Your task to perform on an android device: When is my next appointment? Image 0: 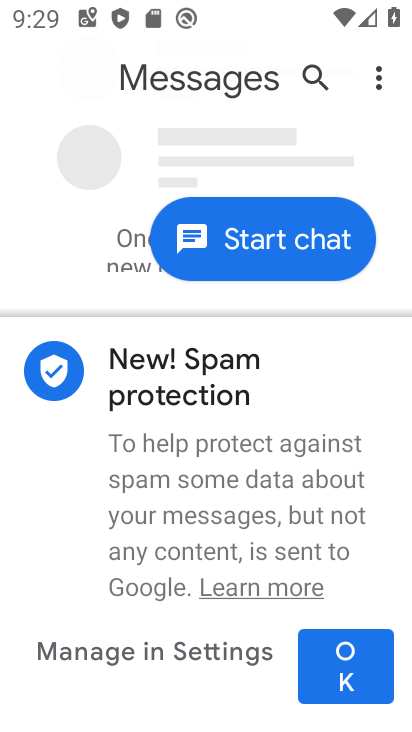
Step 0: press back button
Your task to perform on an android device: When is my next appointment? Image 1: 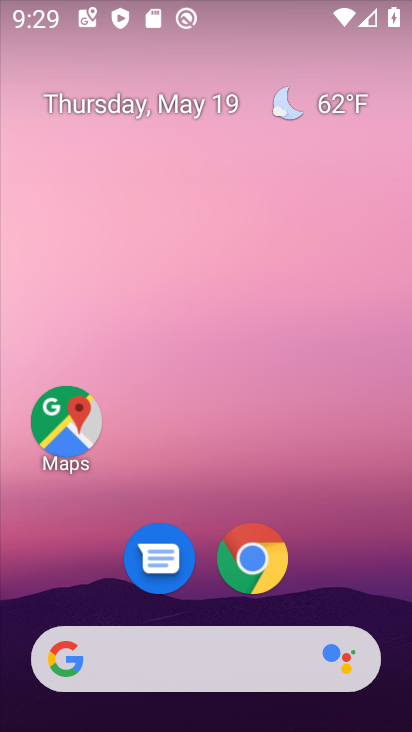
Step 1: drag from (337, 544) to (203, 65)
Your task to perform on an android device: When is my next appointment? Image 2: 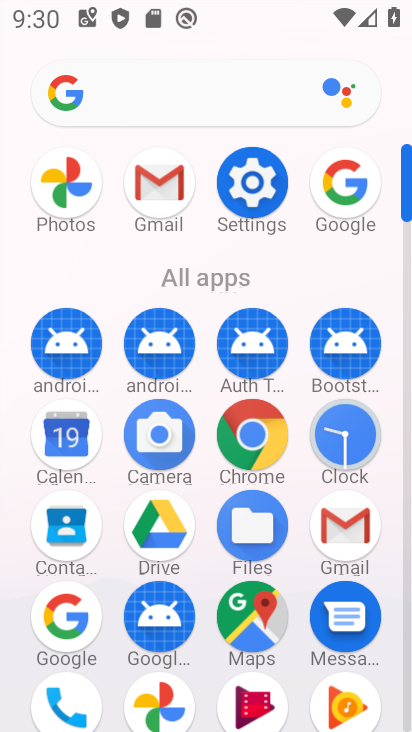
Step 2: click (71, 437)
Your task to perform on an android device: When is my next appointment? Image 3: 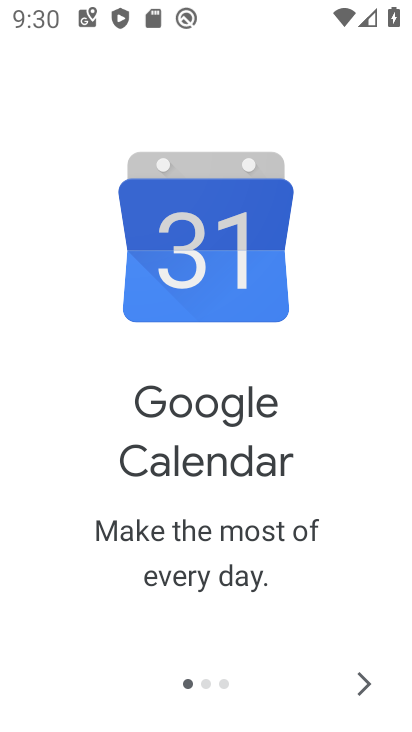
Step 3: click (373, 680)
Your task to perform on an android device: When is my next appointment? Image 4: 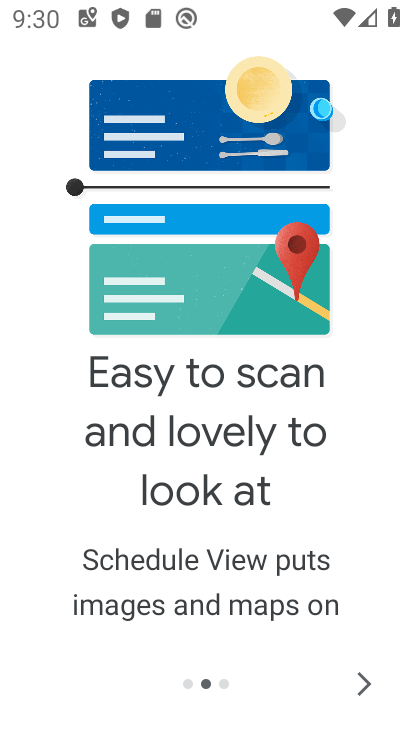
Step 4: click (373, 680)
Your task to perform on an android device: When is my next appointment? Image 5: 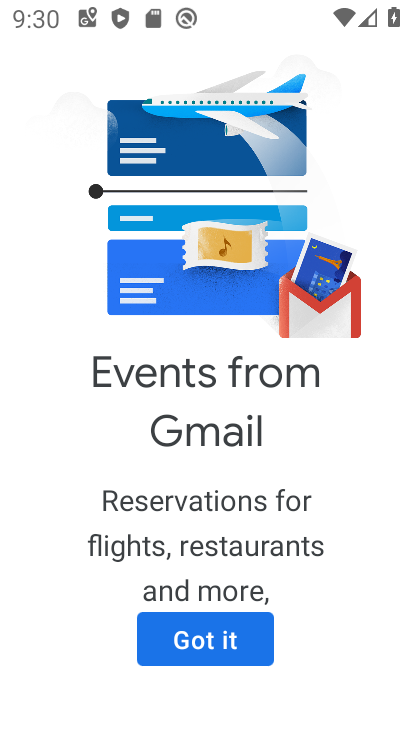
Step 5: click (213, 644)
Your task to perform on an android device: When is my next appointment? Image 6: 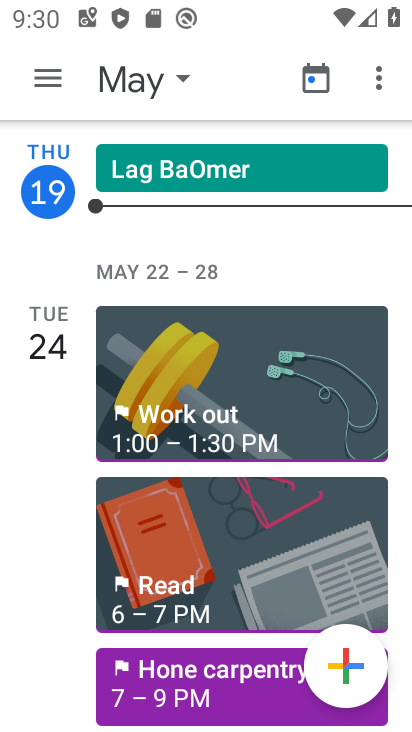
Step 6: click (316, 74)
Your task to perform on an android device: When is my next appointment? Image 7: 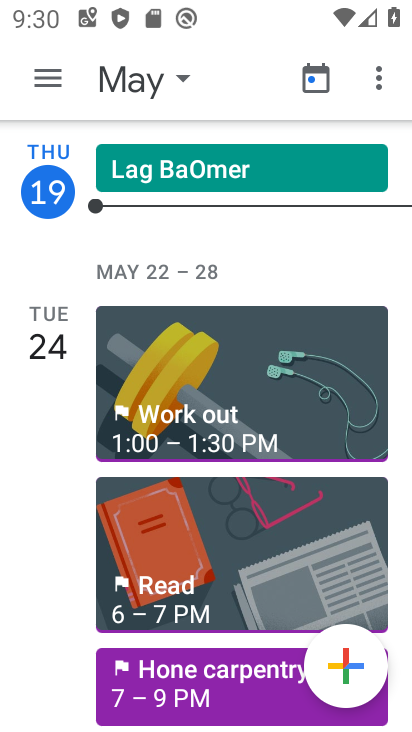
Step 7: click (182, 79)
Your task to perform on an android device: When is my next appointment? Image 8: 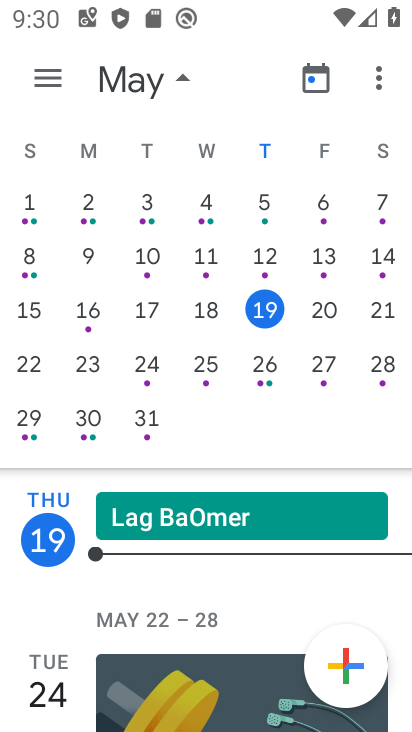
Step 8: click (149, 372)
Your task to perform on an android device: When is my next appointment? Image 9: 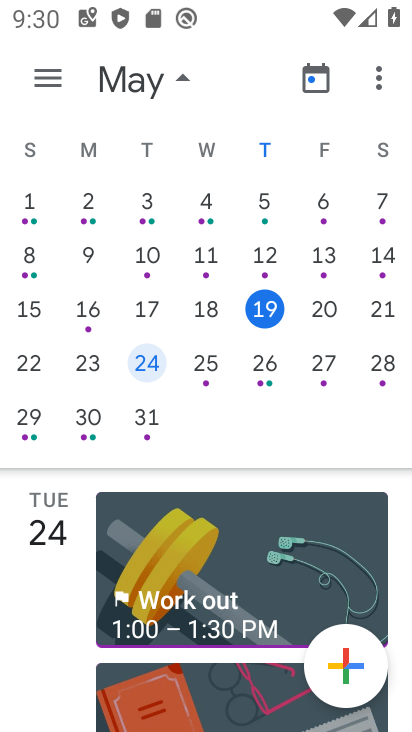
Step 9: click (58, 76)
Your task to perform on an android device: When is my next appointment? Image 10: 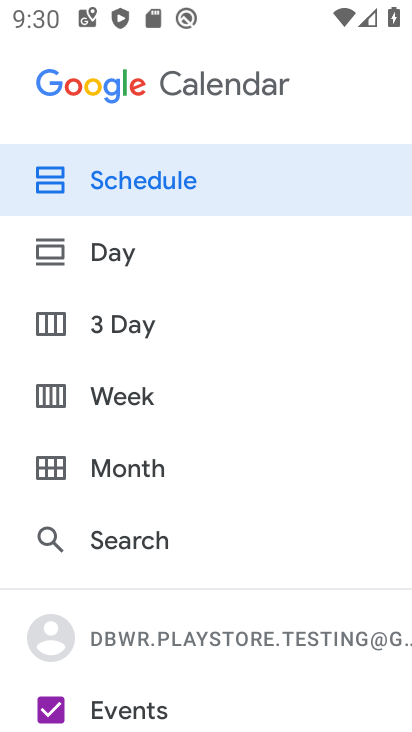
Step 10: click (125, 416)
Your task to perform on an android device: When is my next appointment? Image 11: 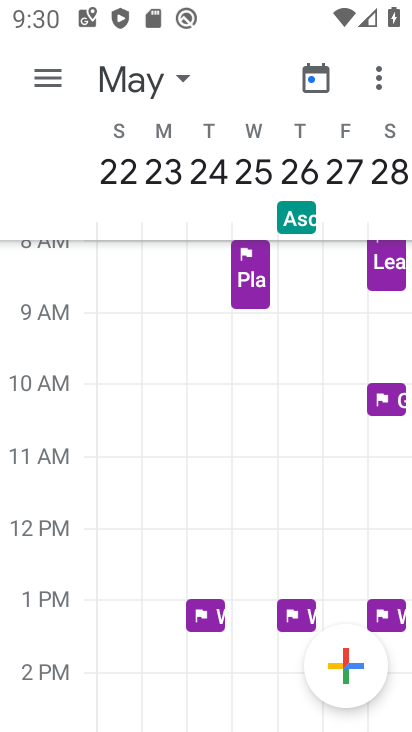
Step 11: task complete